Your task to perform on an android device: turn pop-ups off in chrome Image 0: 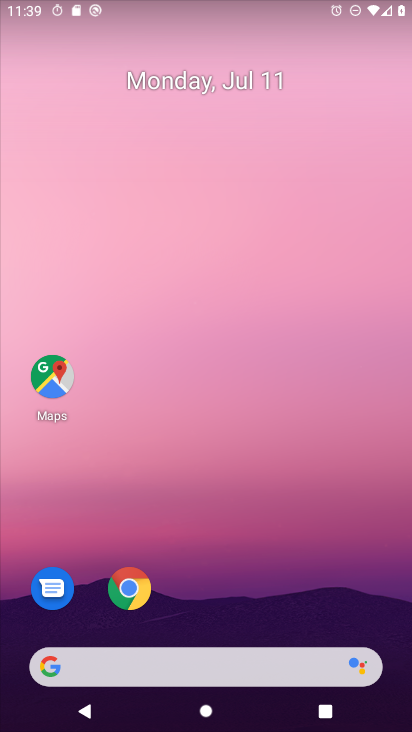
Step 0: click (119, 585)
Your task to perform on an android device: turn pop-ups off in chrome Image 1: 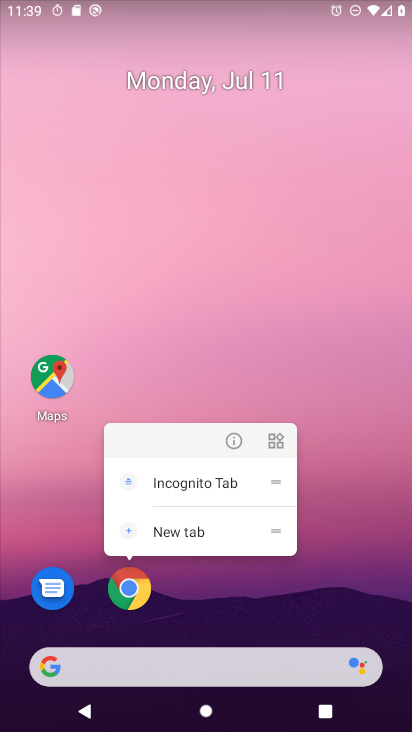
Step 1: click (139, 576)
Your task to perform on an android device: turn pop-ups off in chrome Image 2: 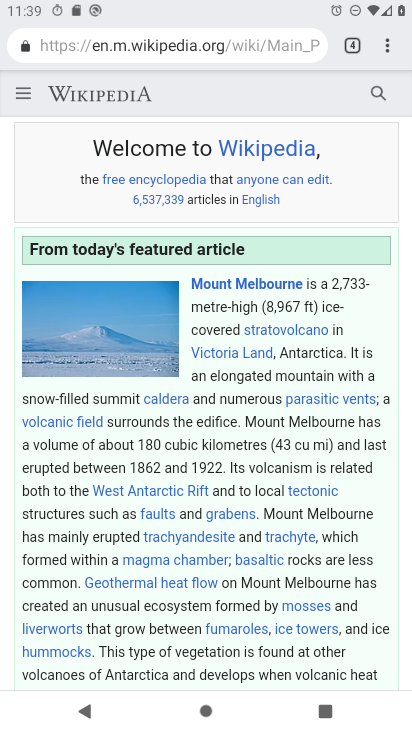
Step 2: drag from (385, 44) to (227, 554)
Your task to perform on an android device: turn pop-ups off in chrome Image 3: 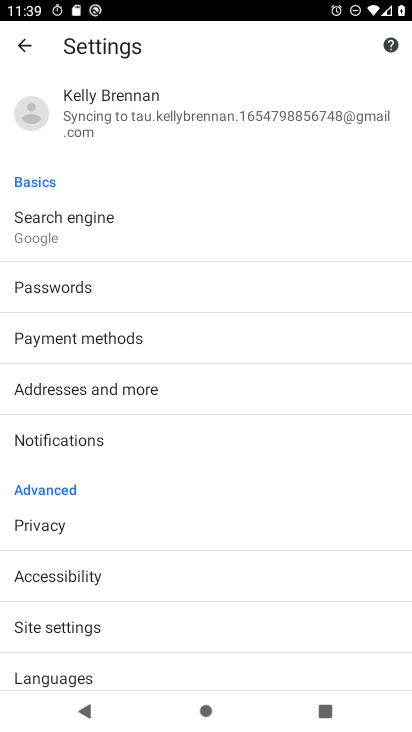
Step 3: click (70, 620)
Your task to perform on an android device: turn pop-ups off in chrome Image 4: 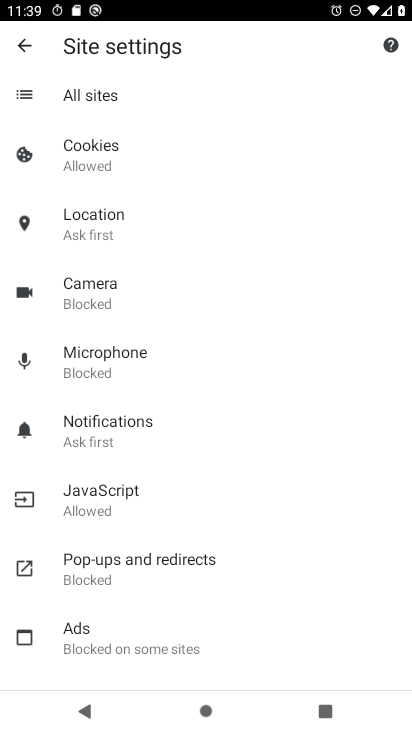
Step 4: click (114, 577)
Your task to perform on an android device: turn pop-ups off in chrome Image 5: 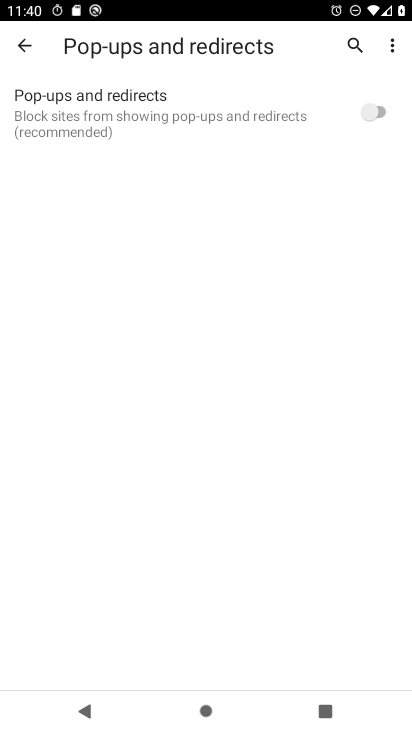
Step 5: task complete